Your task to perform on an android device: toggle location history Image 0: 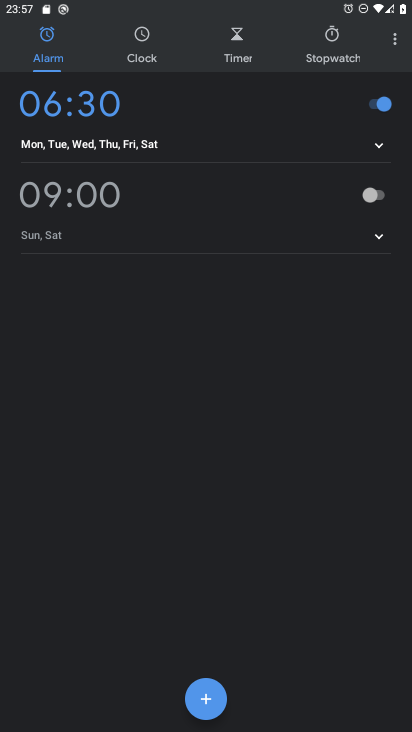
Step 0: press home button
Your task to perform on an android device: toggle location history Image 1: 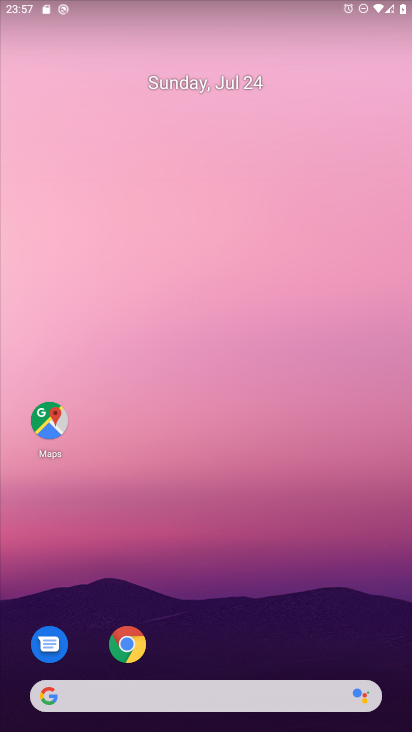
Step 1: click (48, 411)
Your task to perform on an android device: toggle location history Image 2: 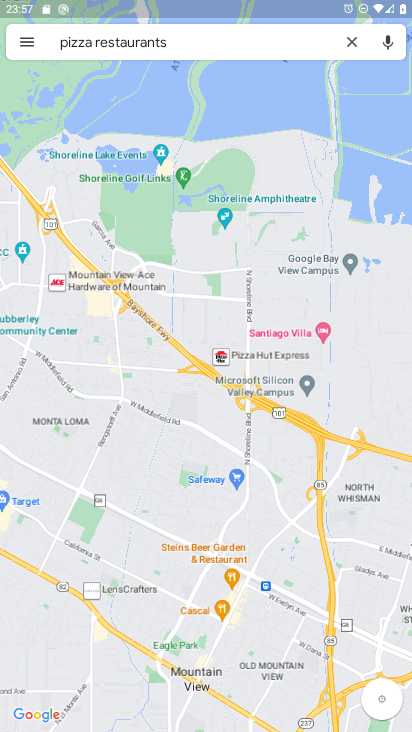
Step 2: click (28, 42)
Your task to perform on an android device: toggle location history Image 3: 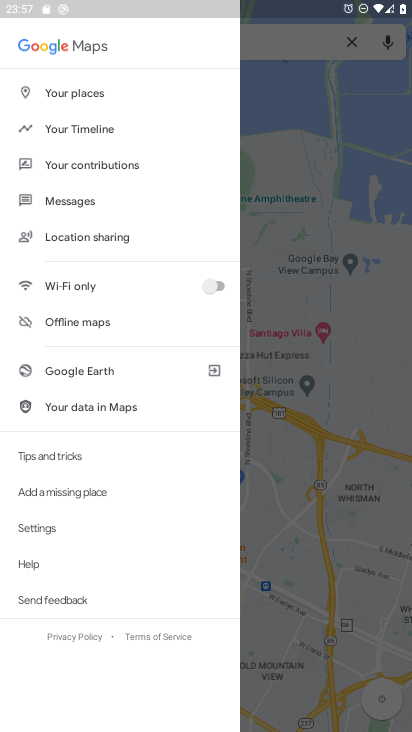
Step 3: click (36, 526)
Your task to perform on an android device: toggle location history Image 4: 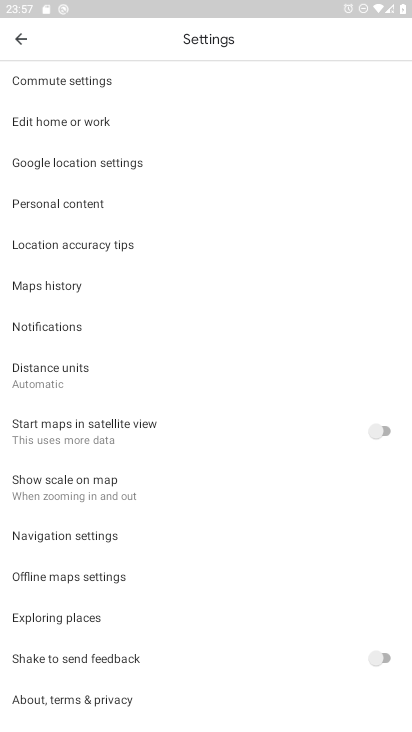
Step 4: click (47, 202)
Your task to perform on an android device: toggle location history Image 5: 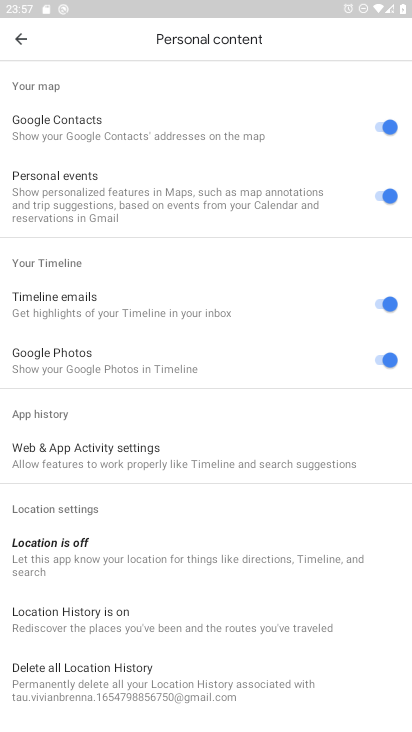
Step 5: click (71, 617)
Your task to perform on an android device: toggle location history Image 6: 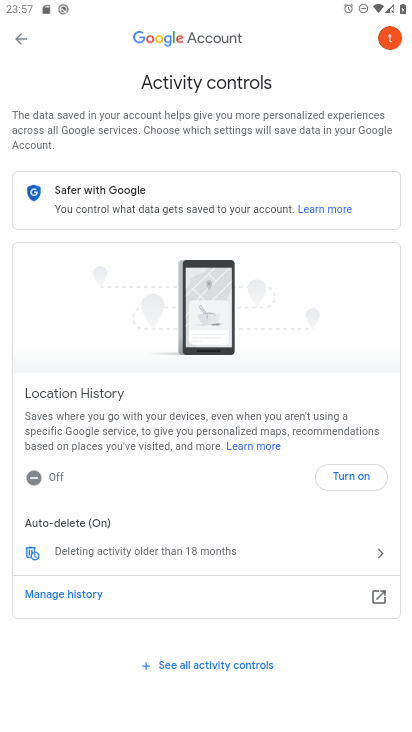
Step 6: click (348, 477)
Your task to perform on an android device: toggle location history Image 7: 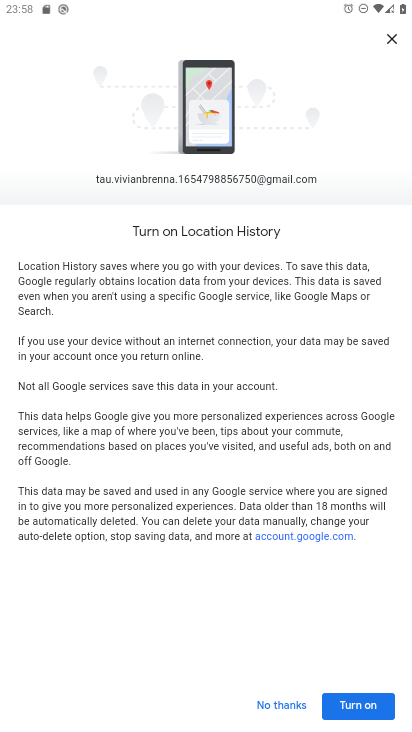
Step 7: click (361, 704)
Your task to perform on an android device: toggle location history Image 8: 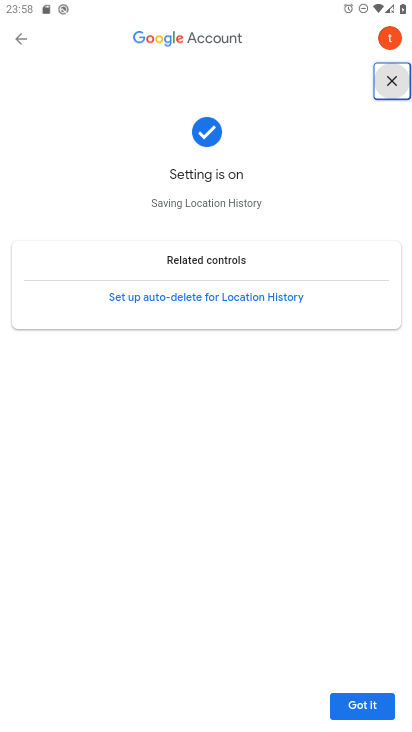
Step 8: click (361, 704)
Your task to perform on an android device: toggle location history Image 9: 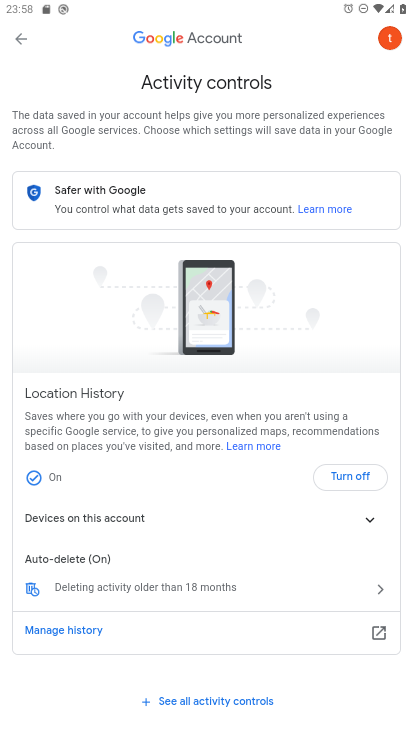
Step 9: task complete